Your task to perform on an android device: Do I have any events today? Image 0: 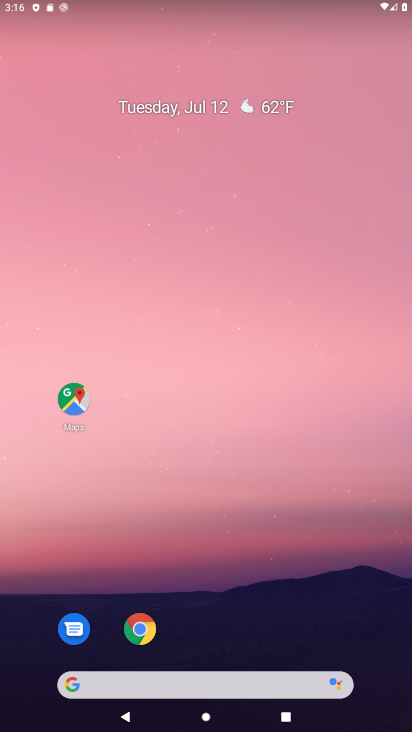
Step 0: drag from (223, 658) to (231, 14)
Your task to perform on an android device: Do I have any events today? Image 1: 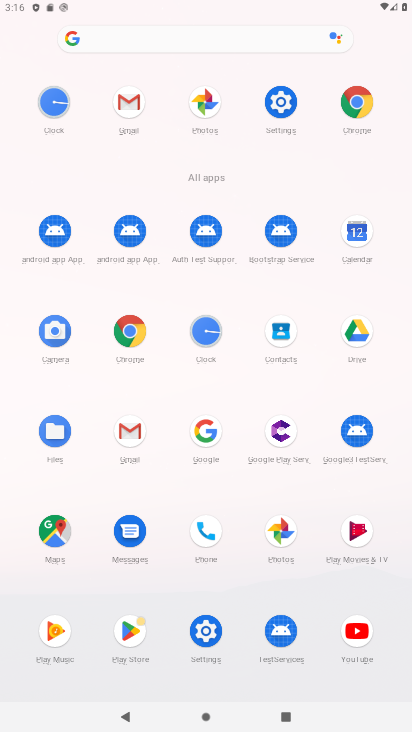
Step 1: click (351, 232)
Your task to perform on an android device: Do I have any events today? Image 2: 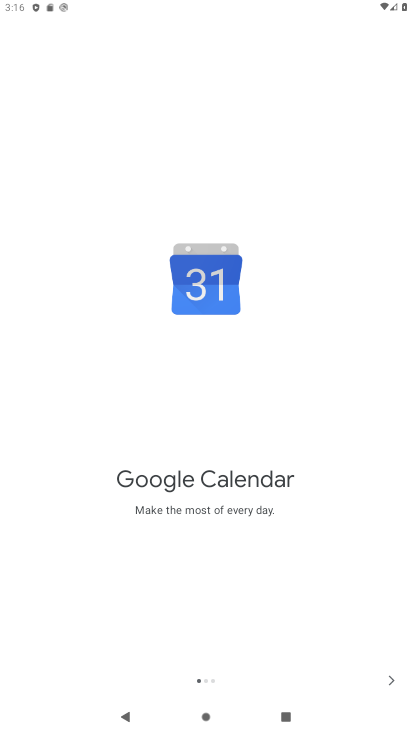
Step 2: click (381, 680)
Your task to perform on an android device: Do I have any events today? Image 3: 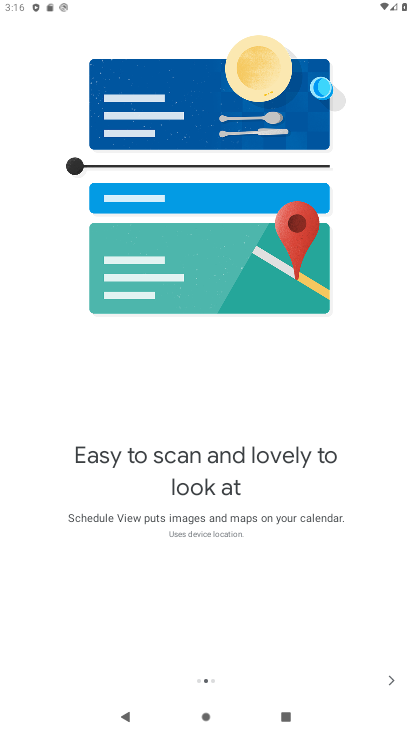
Step 3: click (383, 675)
Your task to perform on an android device: Do I have any events today? Image 4: 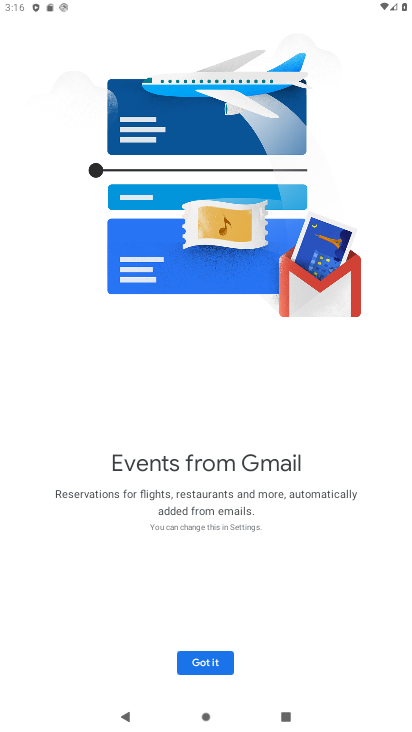
Step 4: click (214, 661)
Your task to perform on an android device: Do I have any events today? Image 5: 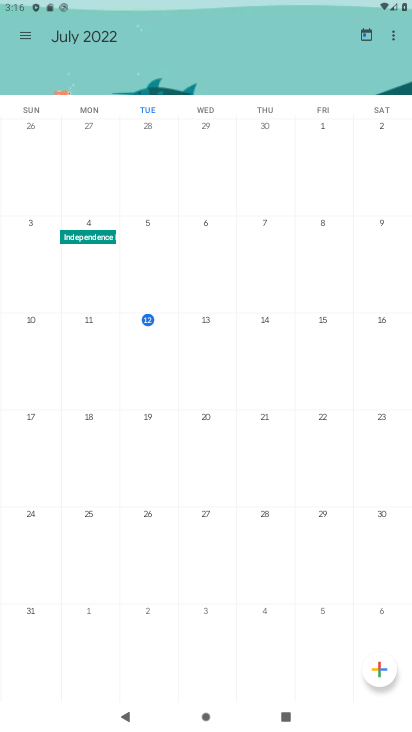
Step 5: click (149, 323)
Your task to perform on an android device: Do I have any events today? Image 6: 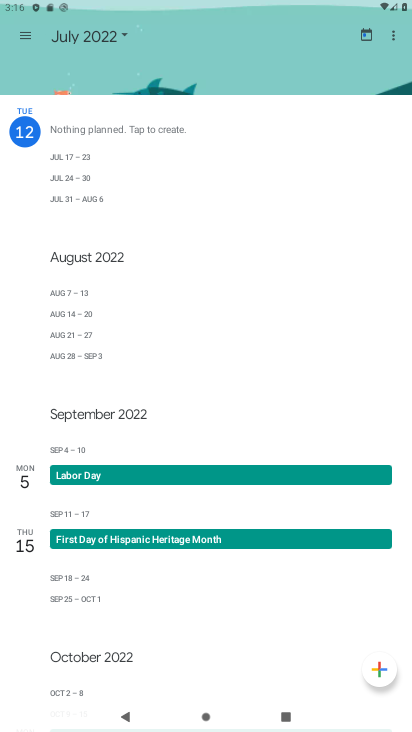
Step 6: task complete